Your task to perform on an android device: Open the phone app and click the voicemail tab. Image 0: 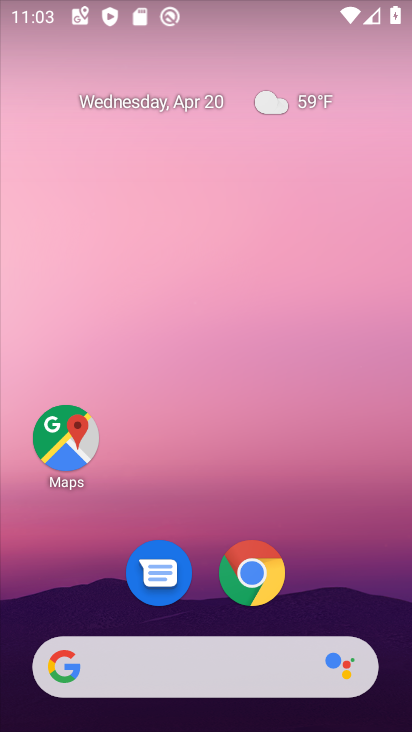
Step 0: drag from (372, 550) to (377, 0)
Your task to perform on an android device: Open the phone app and click the voicemail tab. Image 1: 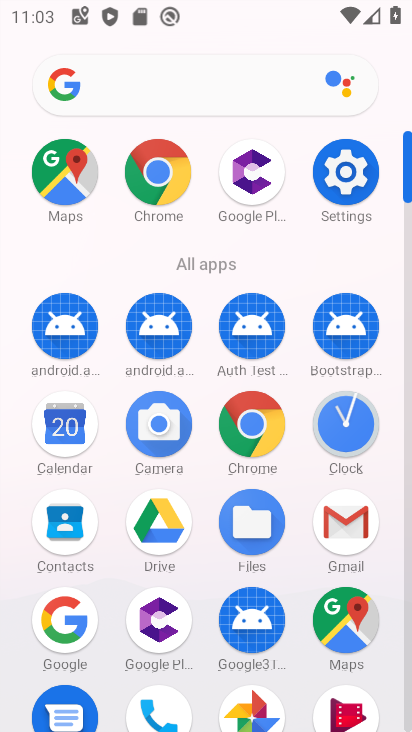
Step 1: drag from (409, 555) to (409, 520)
Your task to perform on an android device: Open the phone app and click the voicemail tab. Image 2: 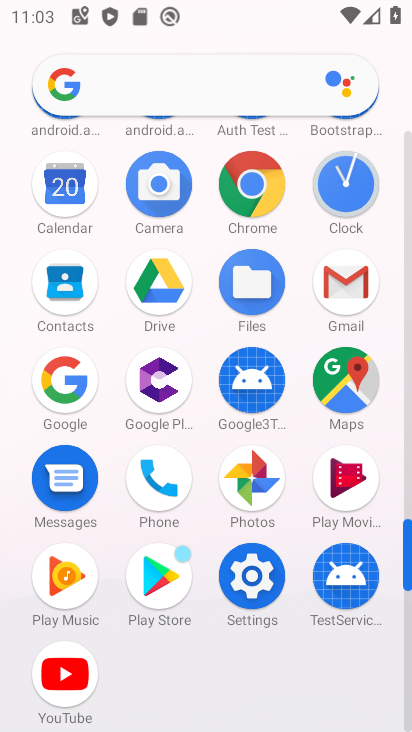
Step 2: click (163, 480)
Your task to perform on an android device: Open the phone app and click the voicemail tab. Image 3: 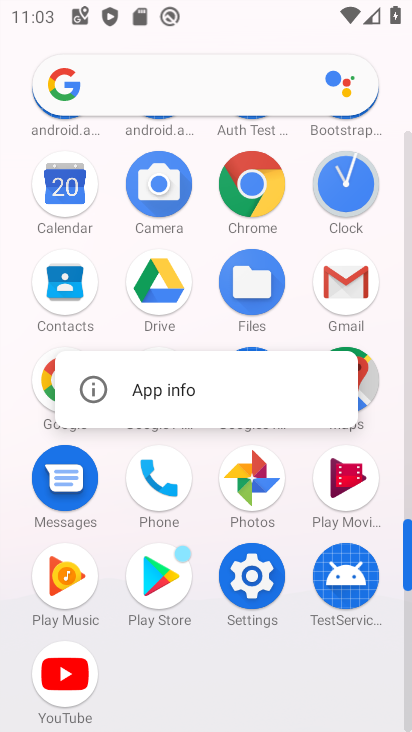
Step 3: click (152, 481)
Your task to perform on an android device: Open the phone app and click the voicemail tab. Image 4: 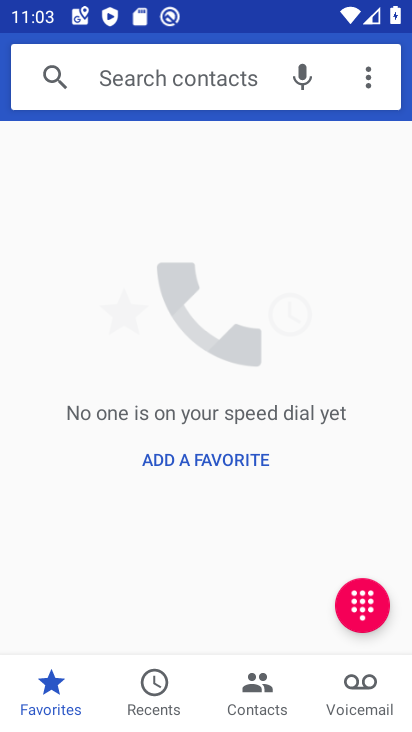
Step 4: click (372, 712)
Your task to perform on an android device: Open the phone app and click the voicemail tab. Image 5: 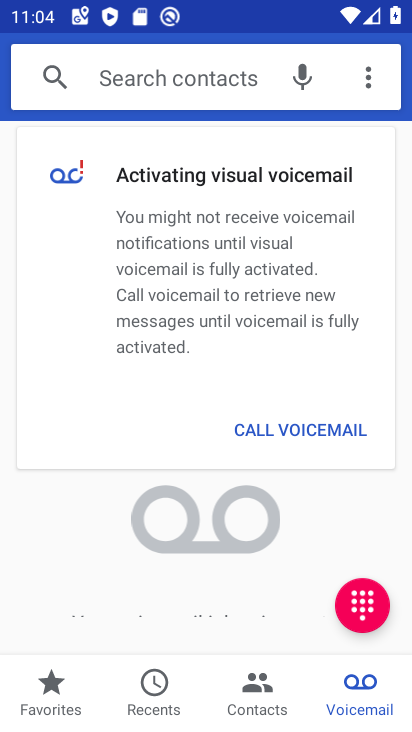
Step 5: task complete